Your task to perform on an android device: turn off priority inbox in the gmail app Image 0: 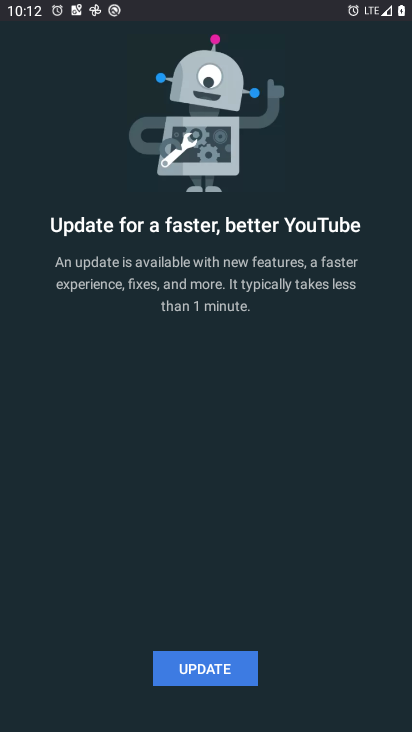
Step 0: press home button
Your task to perform on an android device: turn off priority inbox in the gmail app Image 1: 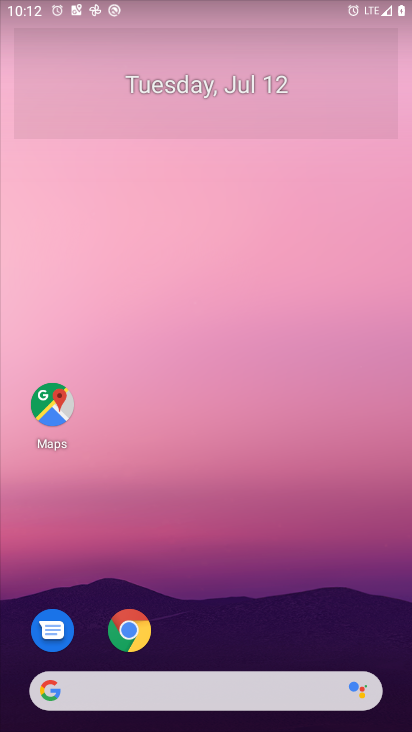
Step 1: drag from (246, 611) to (252, 32)
Your task to perform on an android device: turn off priority inbox in the gmail app Image 2: 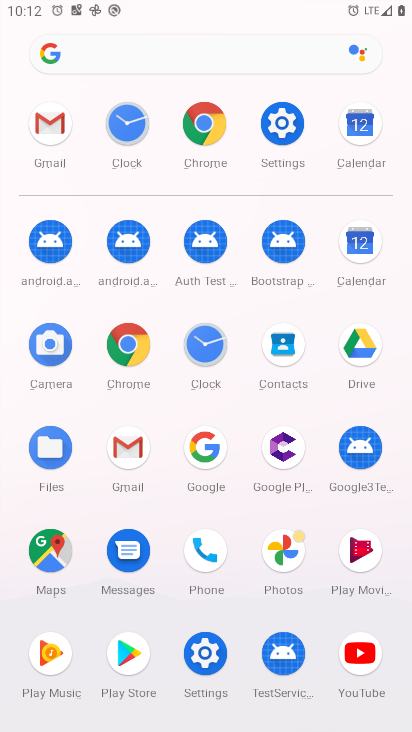
Step 2: click (66, 122)
Your task to perform on an android device: turn off priority inbox in the gmail app Image 3: 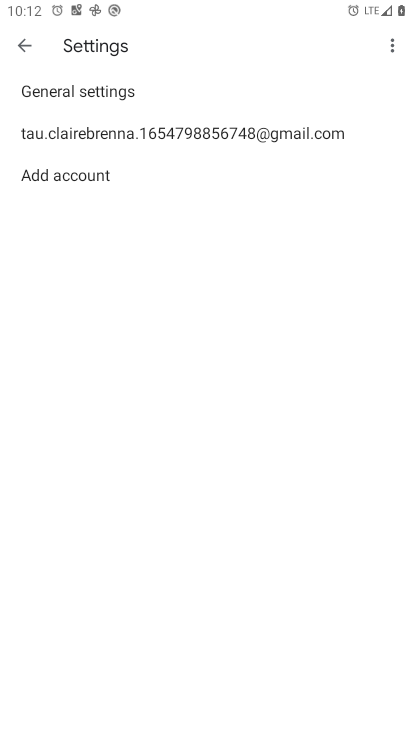
Step 3: click (17, 43)
Your task to perform on an android device: turn off priority inbox in the gmail app Image 4: 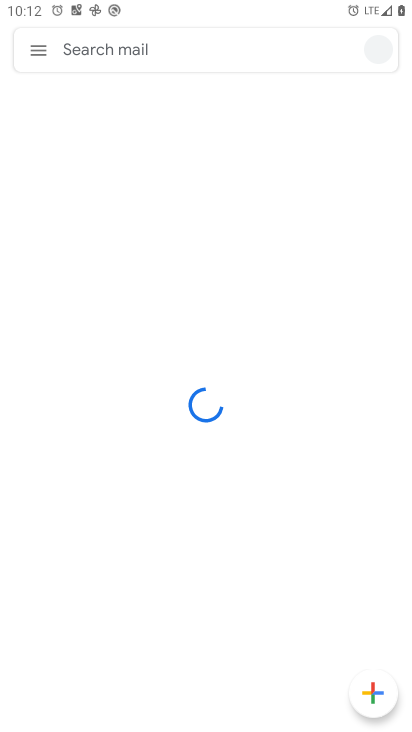
Step 4: click (31, 48)
Your task to perform on an android device: turn off priority inbox in the gmail app Image 5: 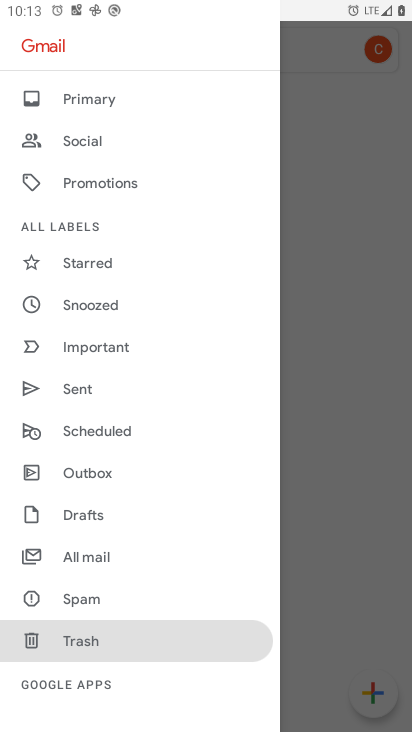
Step 5: drag from (174, 612) to (205, 261)
Your task to perform on an android device: turn off priority inbox in the gmail app Image 6: 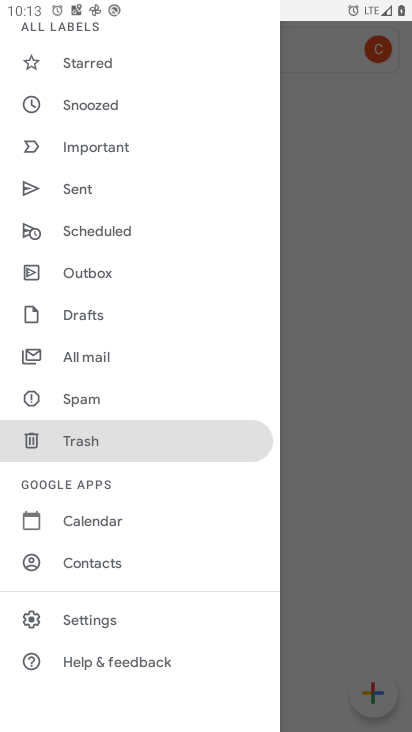
Step 6: click (106, 618)
Your task to perform on an android device: turn off priority inbox in the gmail app Image 7: 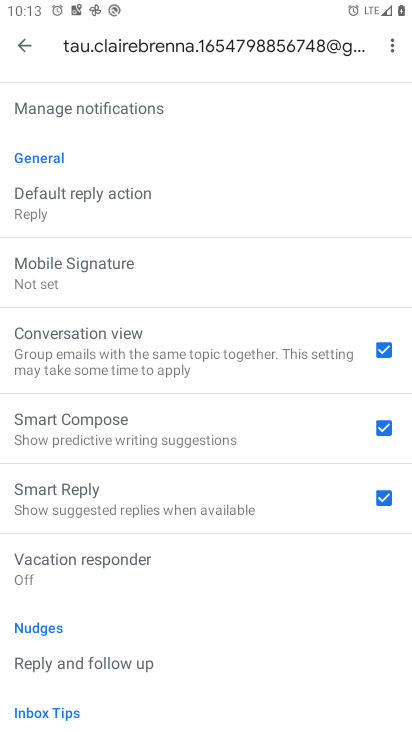
Step 7: drag from (189, 621) to (97, 116)
Your task to perform on an android device: turn off priority inbox in the gmail app Image 8: 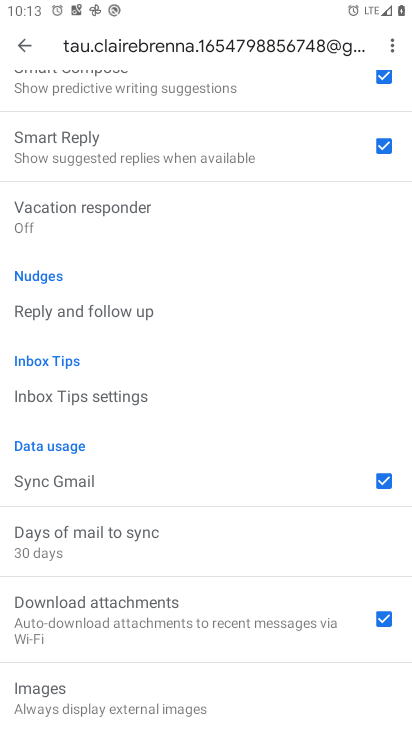
Step 8: drag from (156, 252) to (132, 562)
Your task to perform on an android device: turn off priority inbox in the gmail app Image 9: 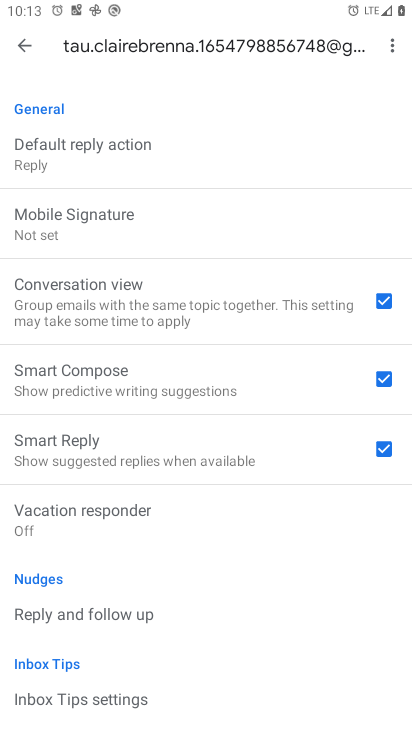
Step 9: click (29, 50)
Your task to perform on an android device: turn off priority inbox in the gmail app Image 10: 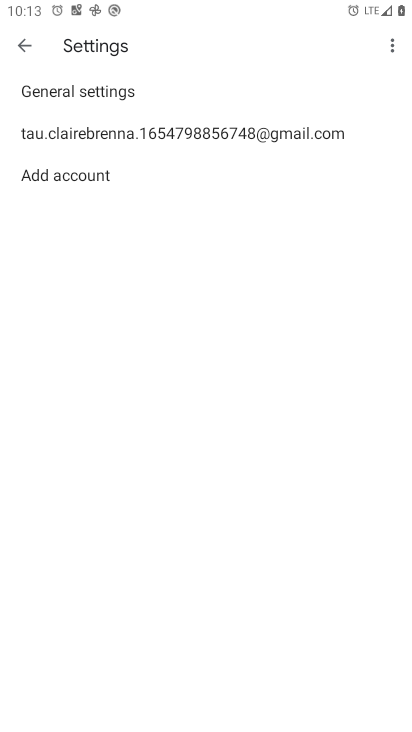
Step 10: click (134, 141)
Your task to perform on an android device: turn off priority inbox in the gmail app Image 11: 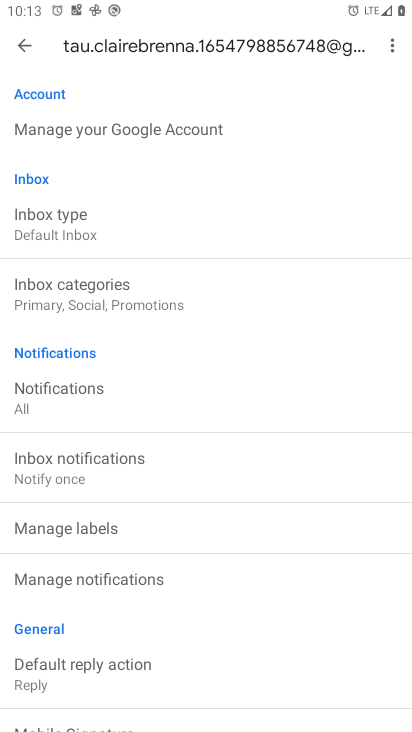
Step 11: click (49, 226)
Your task to perform on an android device: turn off priority inbox in the gmail app Image 12: 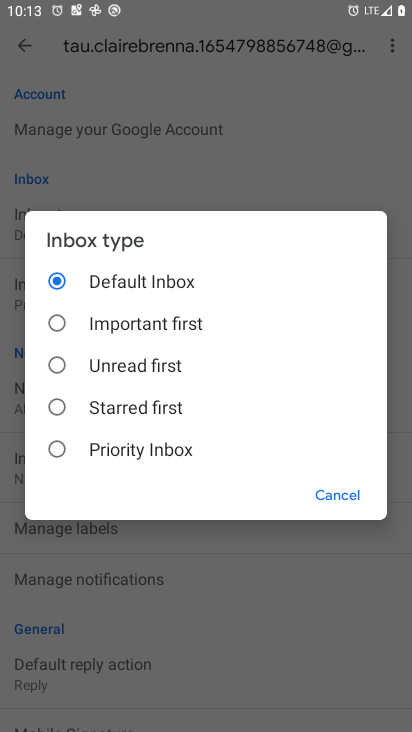
Step 12: task complete